Your task to perform on an android device: create a new album in the google photos Image 0: 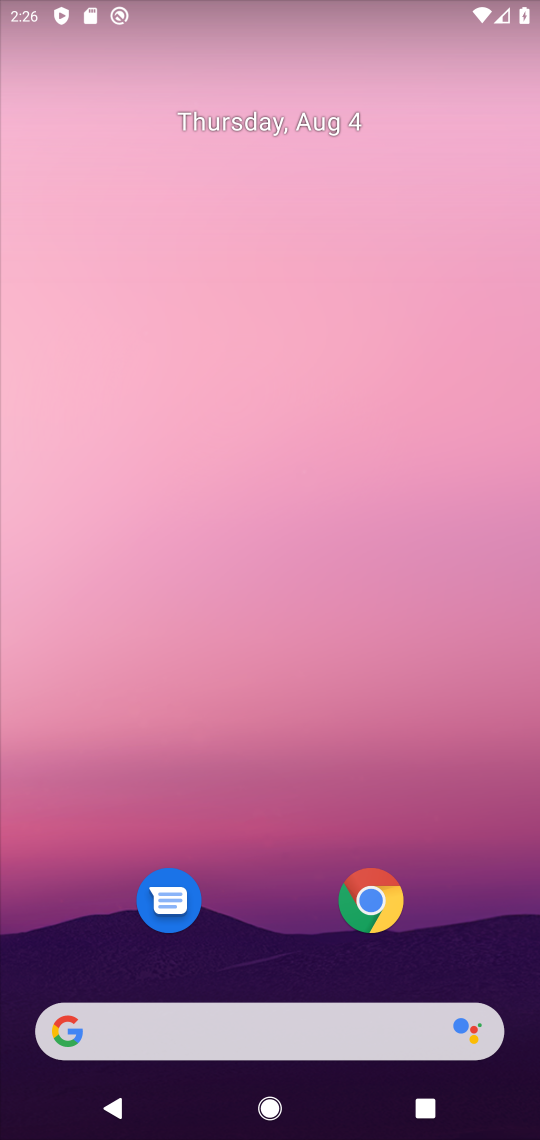
Step 0: drag from (461, 923) to (323, 50)
Your task to perform on an android device: create a new album in the google photos Image 1: 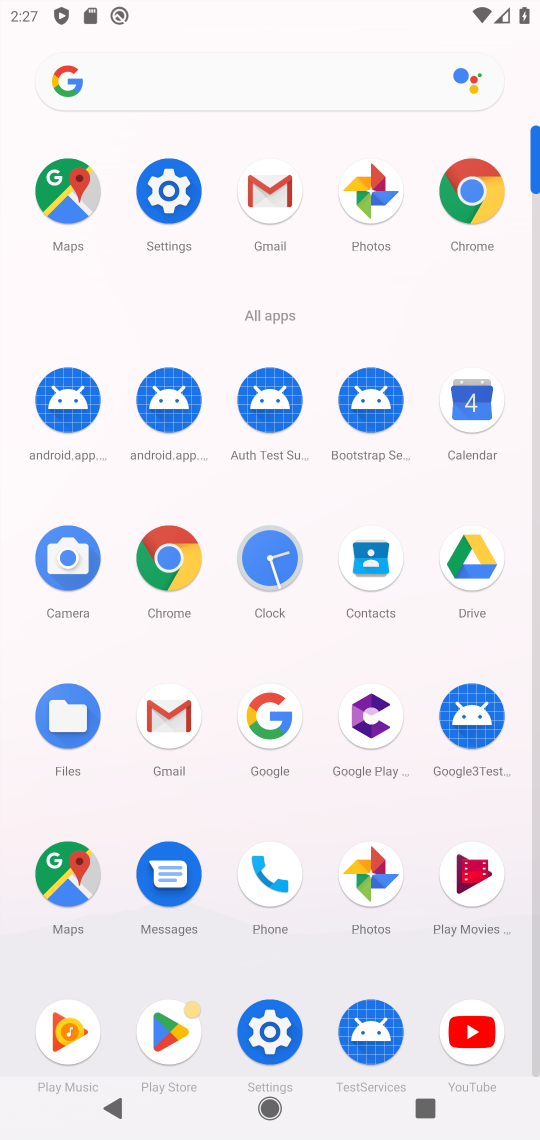
Step 1: click (381, 870)
Your task to perform on an android device: create a new album in the google photos Image 2: 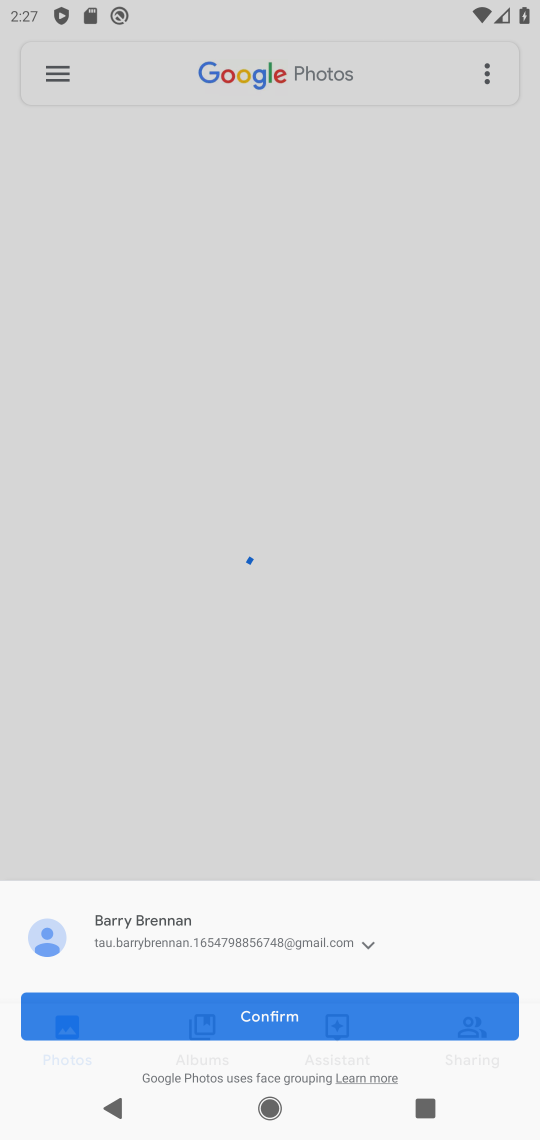
Step 2: drag from (480, 1015) to (443, 917)
Your task to perform on an android device: create a new album in the google photos Image 3: 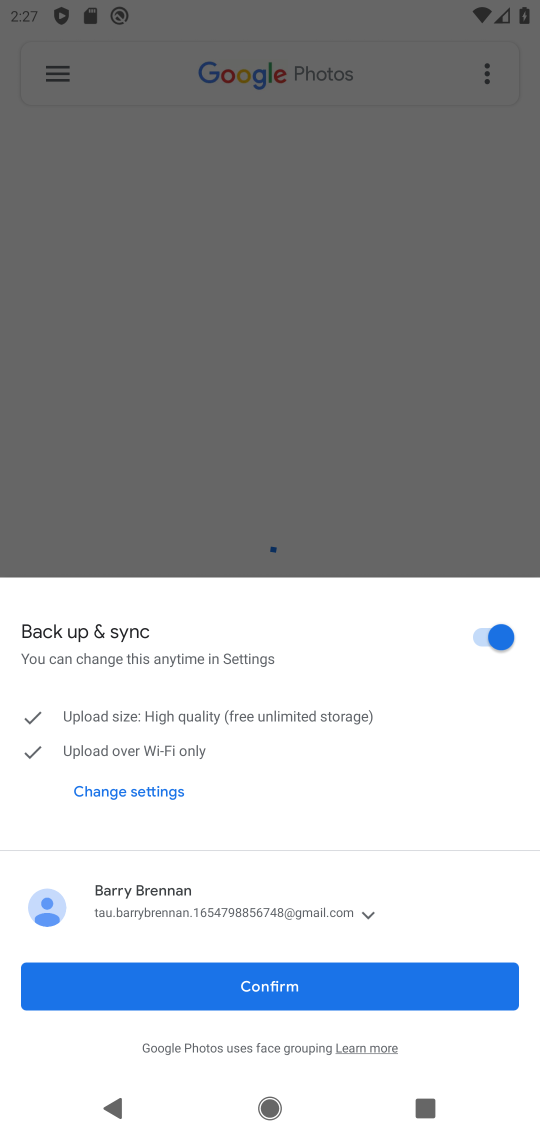
Step 3: click (376, 972)
Your task to perform on an android device: create a new album in the google photos Image 4: 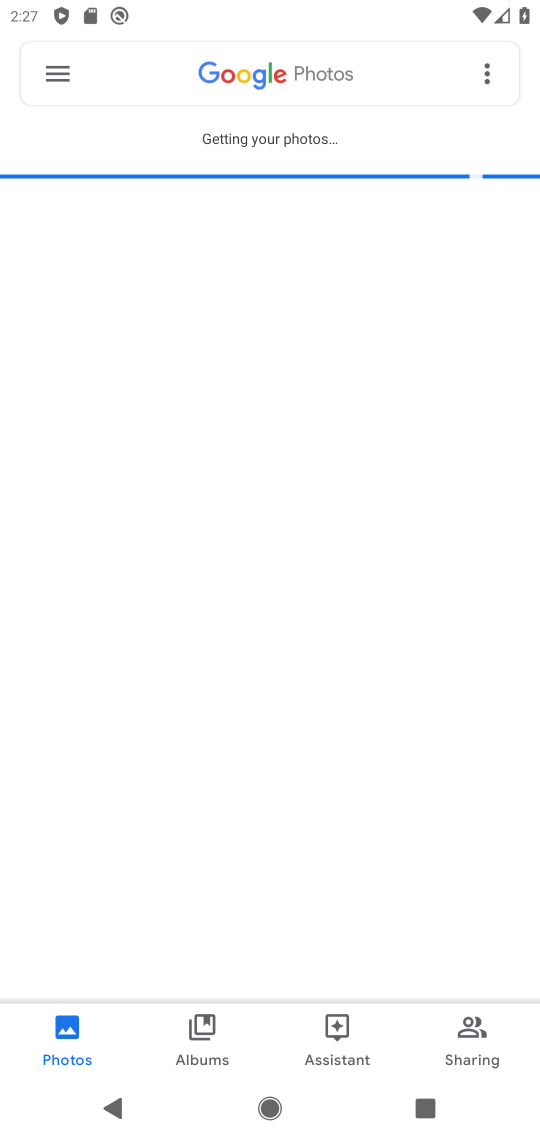
Step 4: click (348, 1043)
Your task to perform on an android device: create a new album in the google photos Image 5: 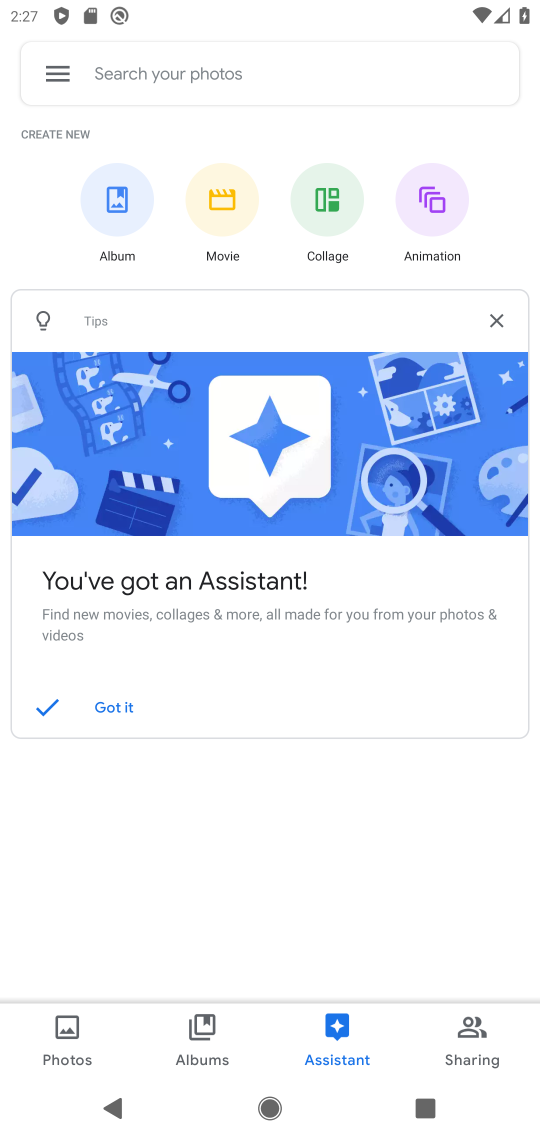
Step 5: click (125, 200)
Your task to perform on an android device: create a new album in the google photos Image 6: 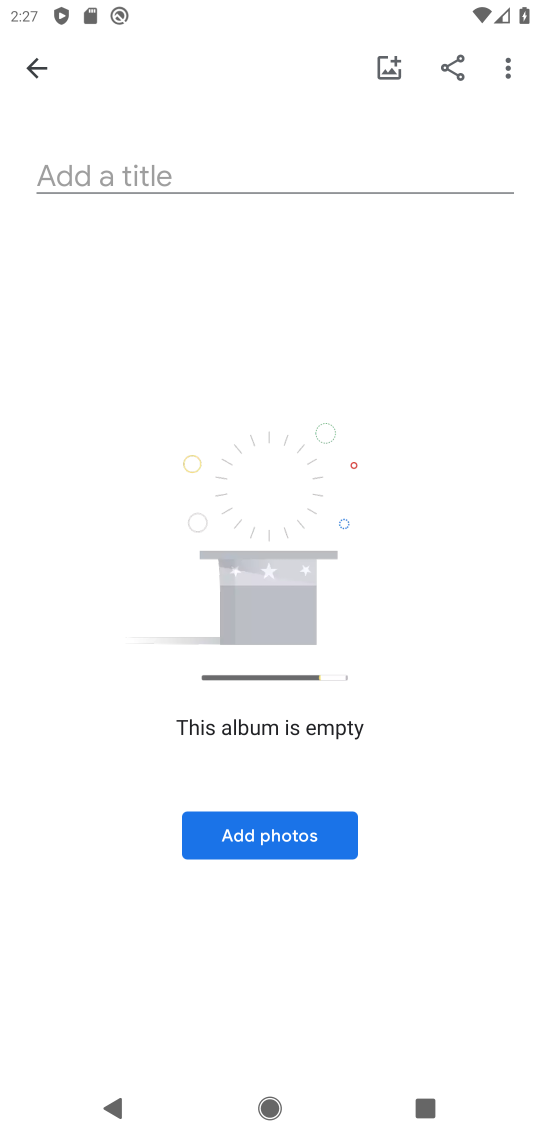
Step 6: click (141, 174)
Your task to perform on an android device: create a new album in the google photos Image 7: 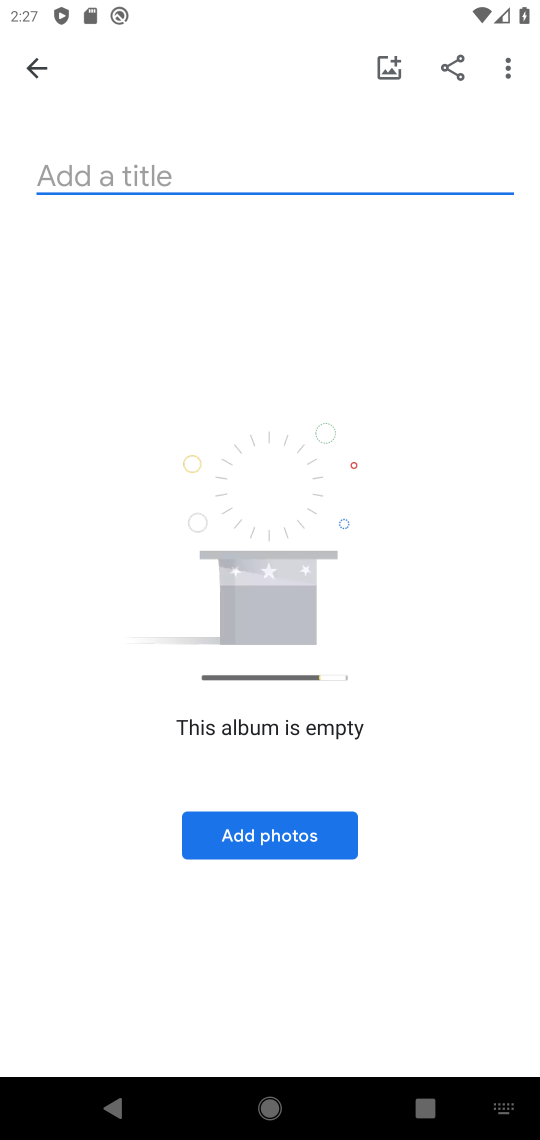
Step 7: type "vjvjhv"
Your task to perform on an android device: create a new album in the google photos Image 8: 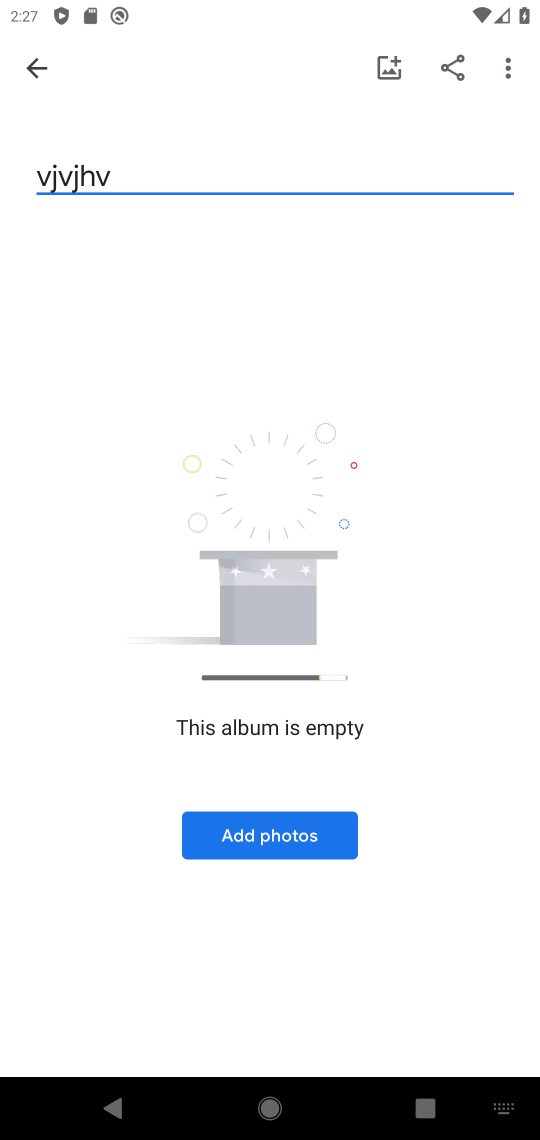
Step 8: click (266, 828)
Your task to perform on an android device: create a new album in the google photos Image 9: 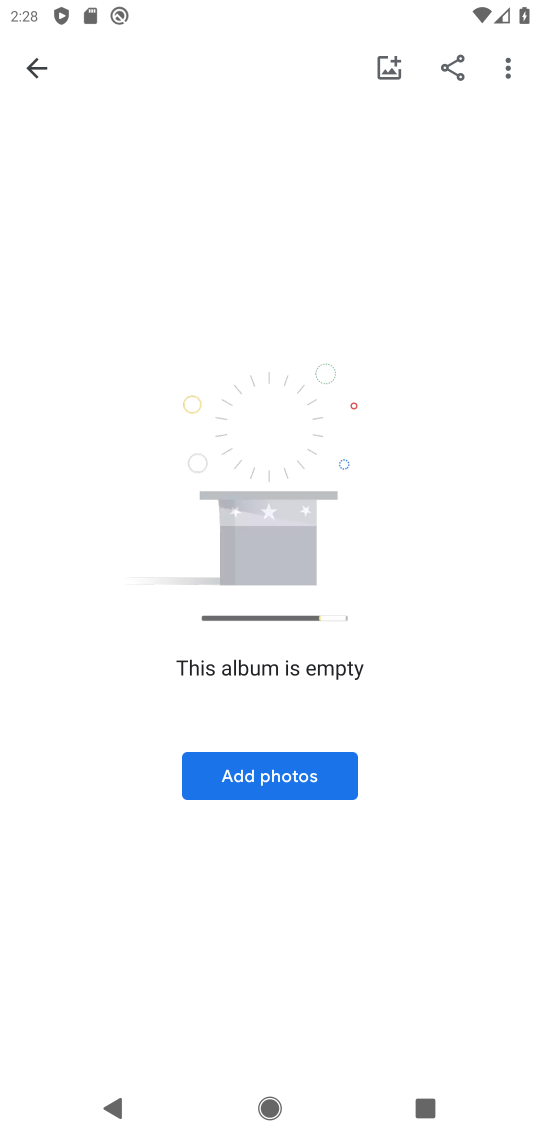
Step 9: click (258, 774)
Your task to perform on an android device: create a new album in the google photos Image 10: 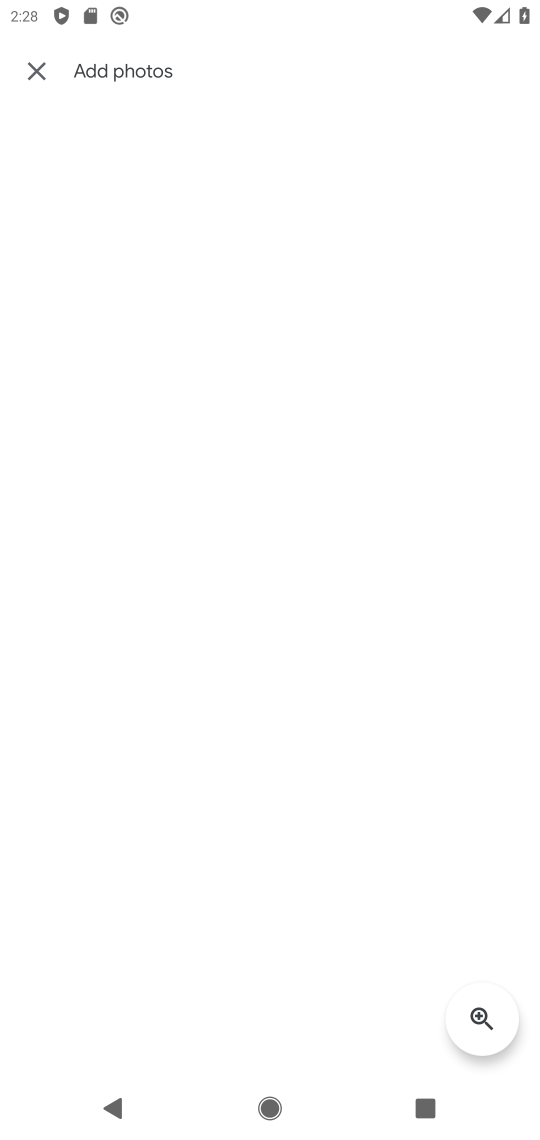
Step 10: task complete